Your task to perform on an android device: toggle javascript in the chrome app Image 0: 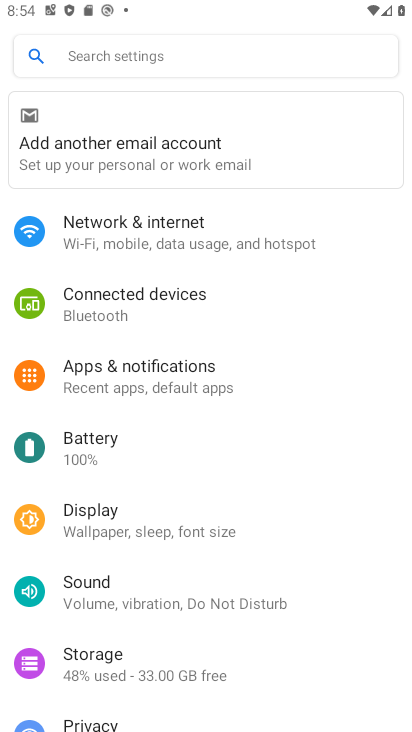
Step 0: press back button
Your task to perform on an android device: toggle javascript in the chrome app Image 1: 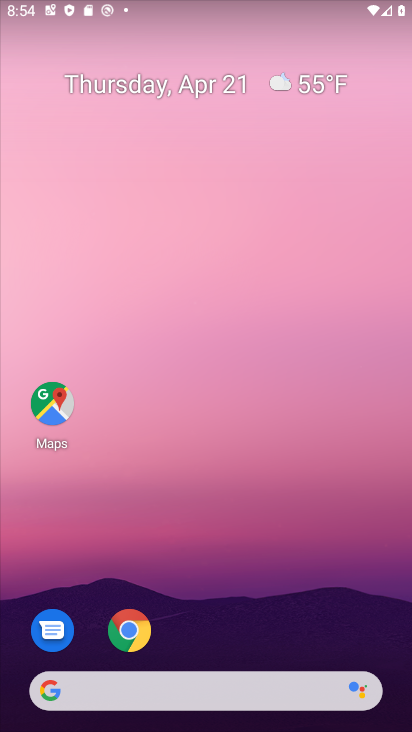
Step 1: click (136, 628)
Your task to perform on an android device: toggle javascript in the chrome app Image 2: 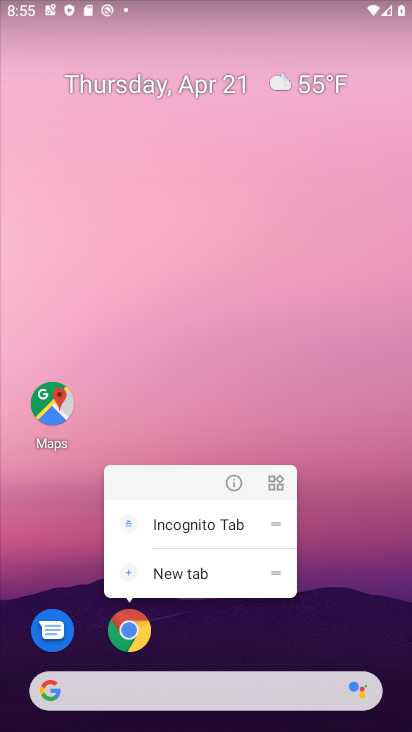
Step 2: click (137, 629)
Your task to perform on an android device: toggle javascript in the chrome app Image 3: 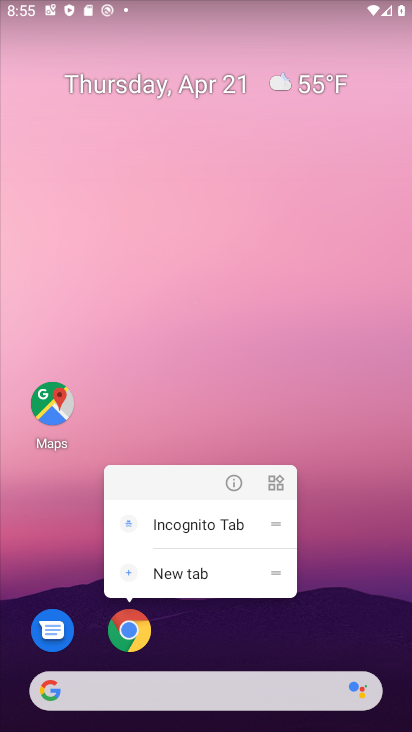
Step 3: click (131, 647)
Your task to perform on an android device: toggle javascript in the chrome app Image 4: 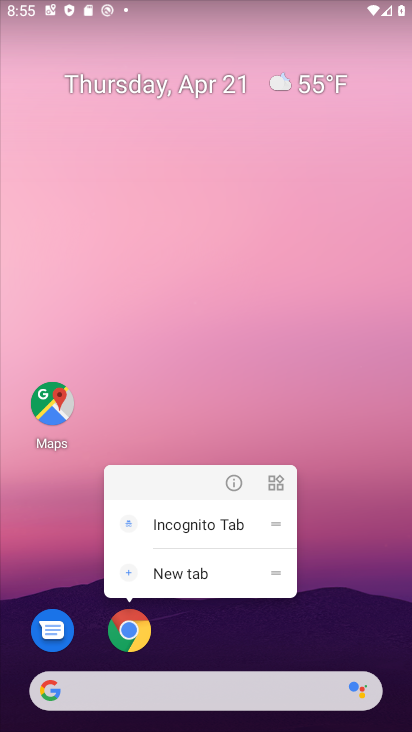
Step 4: click (120, 636)
Your task to perform on an android device: toggle javascript in the chrome app Image 5: 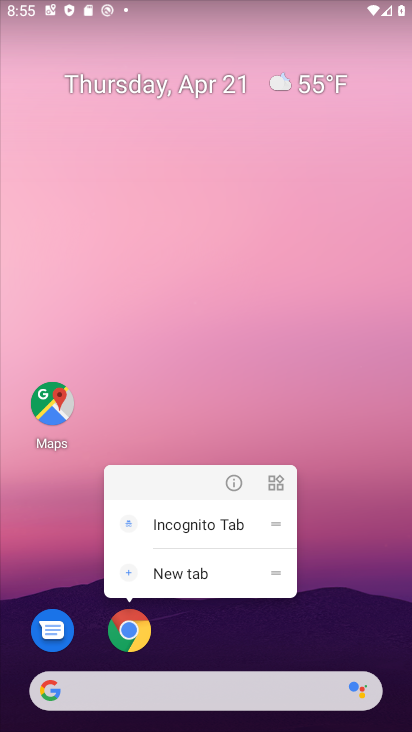
Step 5: click (138, 632)
Your task to perform on an android device: toggle javascript in the chrome app Image 6: 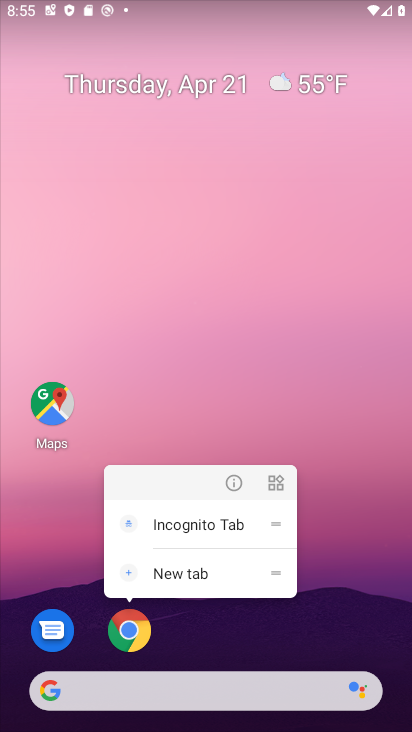
Step 6: click (144, 630)
Your task to perform on an android device: toggle javascript in the chrome app Image 7: 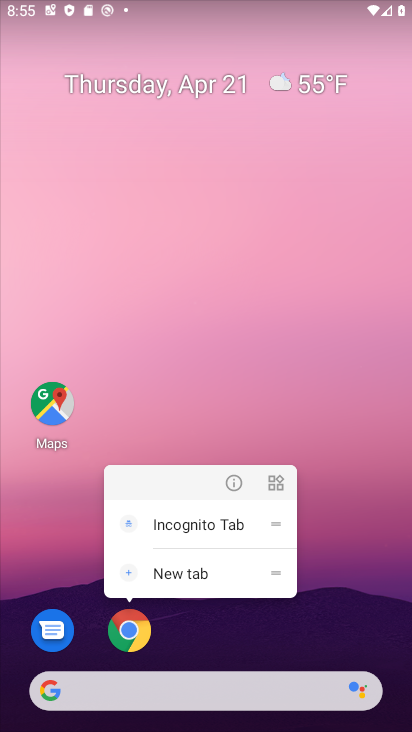
Step 7: click (141, 629)
Your task to perform on an android device: toggle javascript in the chrome app Image 8: 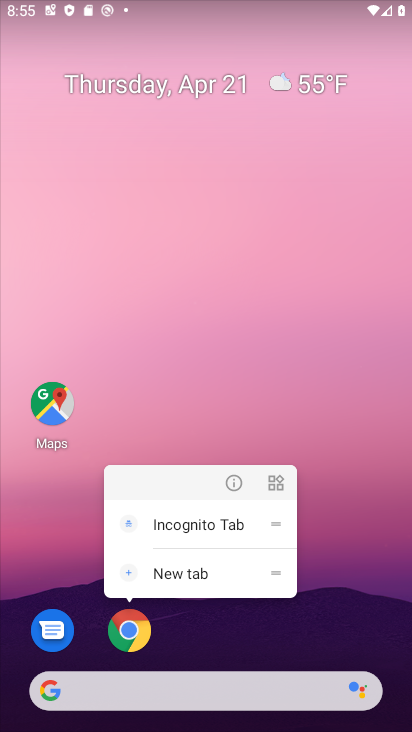
Step 8: click (132, 624)
Your task to perform on an android device: toggle javascript in the chrome app Image 9: 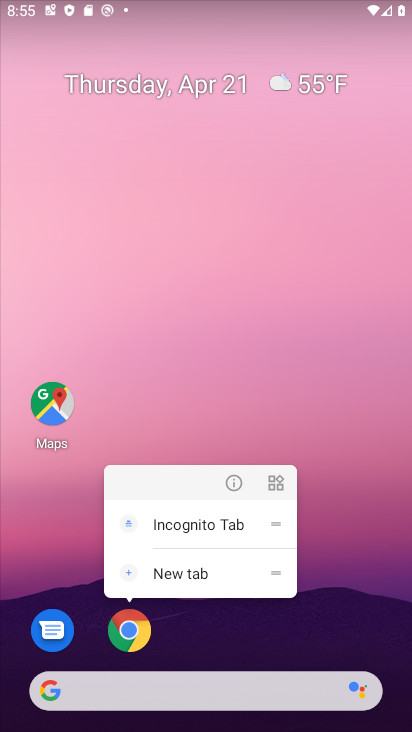
Step 9: click (130, 625)
Your task to perform on an android device: toggle javascript in the chrome app Image 10: 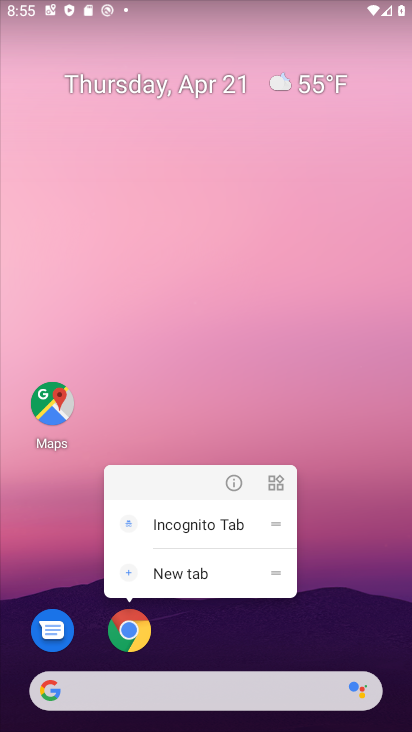
Step 10: drag from (221, 666) to (288, 126)
Your task to perform on an android device: toggle javascript in the chrome app Image 11: 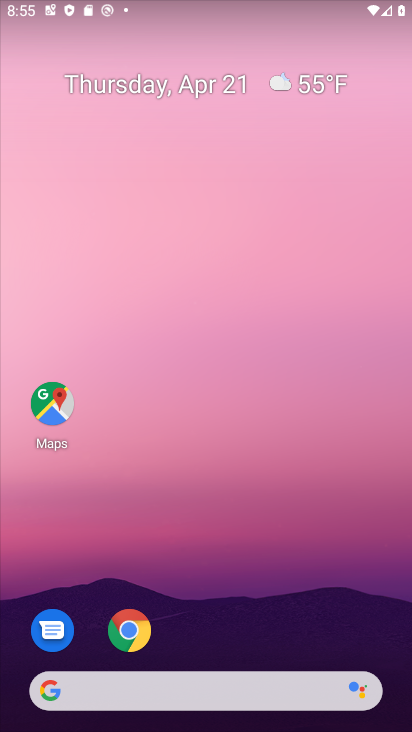
Step 11: drag from (238, 669) to (236, 105)
Your task to perform on an android device: toggle javascript in the chrome app Image 12: 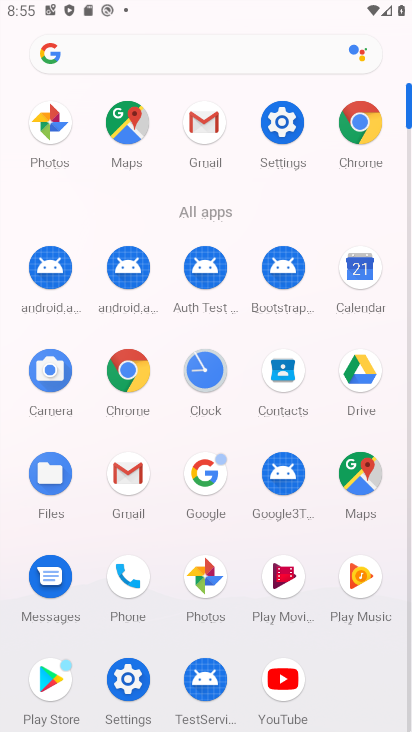
Step 12: click (142, 366)
Your task to perform on an android device: toggle javascript in the chrome app Image 13: 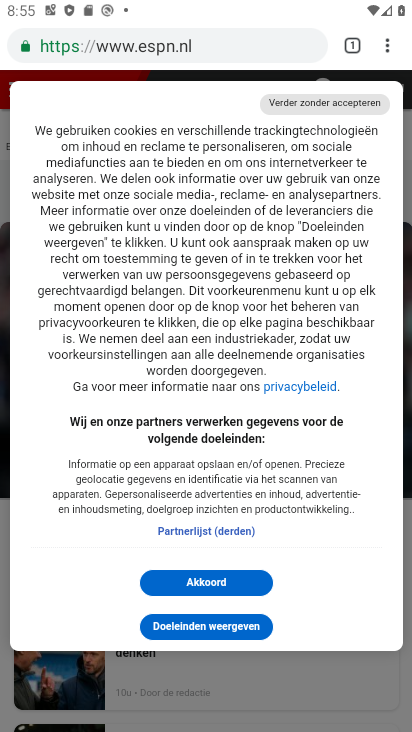
Step 13: drag from (387, 55) to (290, 594)
Your task to perform on an android device: toggle javascript in the chrome app Image 14: 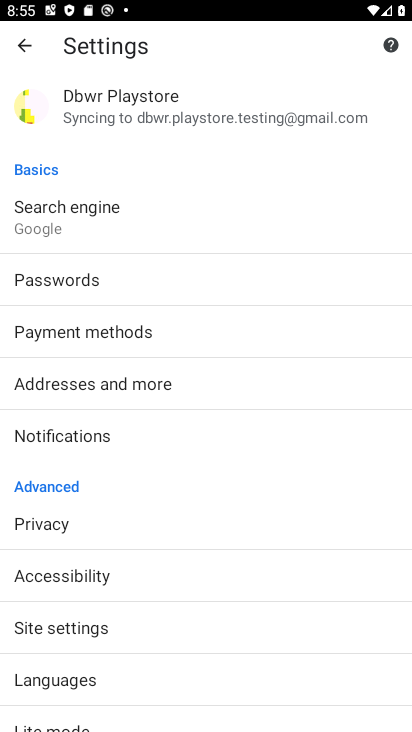
Step 14: drag from (174, 643) to (210, 430)
Your task to perform on an android device: toggle javascript in the chrome app Image 15: 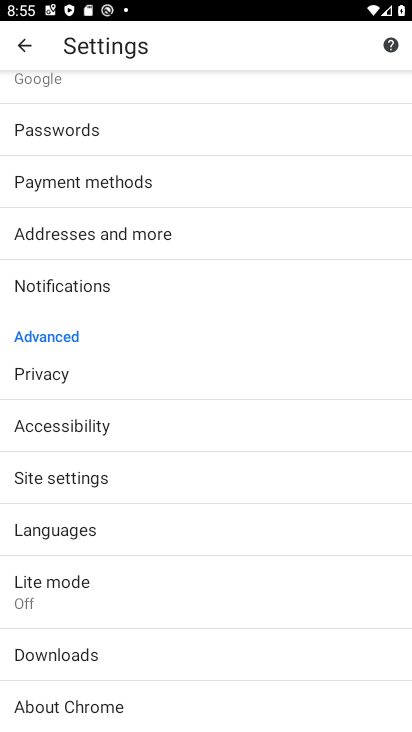
Step 15: click (163, 476)
Your task to perform on an android device: toggle javascript in the chrome app Image 16: 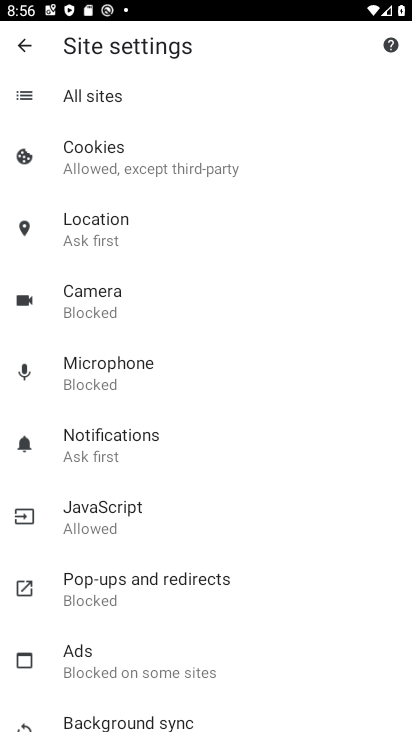
Step 16: drag from (166, 684) to (219, 351)
Your task to perform on an android device: toggle javascript in the chrome app Image 17: 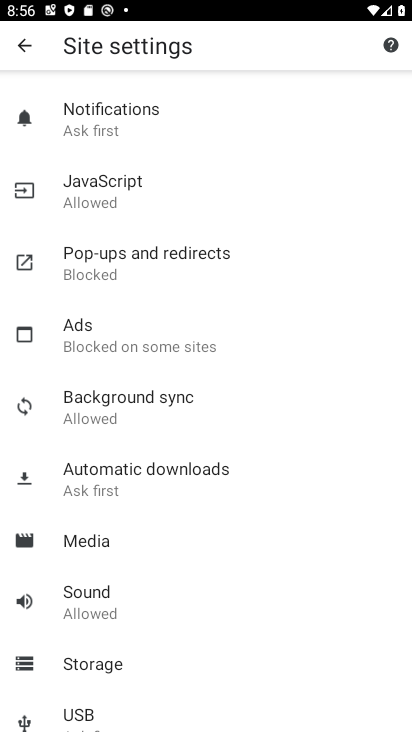
Step 17: click (134, 191)
Your task to perform on an android device: toggle javascript in the chrome app Image 18: 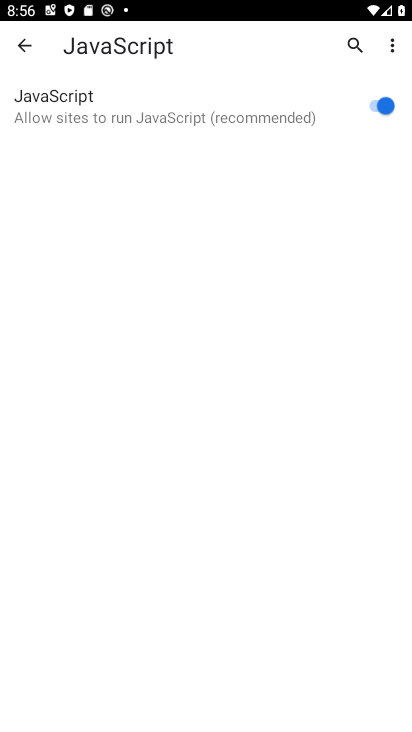
Step 18: click (134, 191)
Your task to perform on an android device: toggle javascript in the chrome app Image 19: 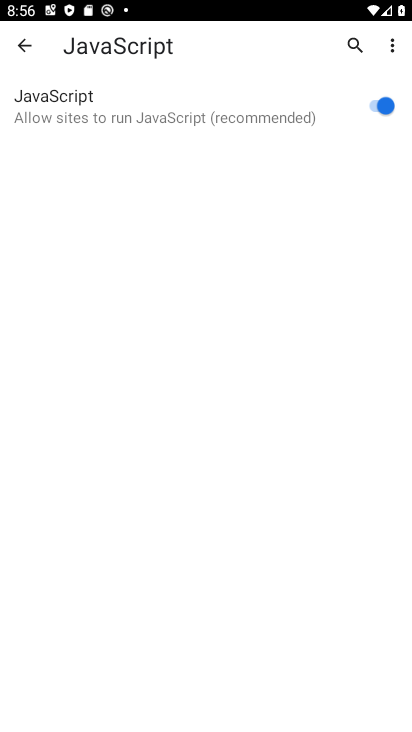
Step 19: click (374, 108)
Your task to perform on an android device: toggle javascript in the chrome app Image 20: 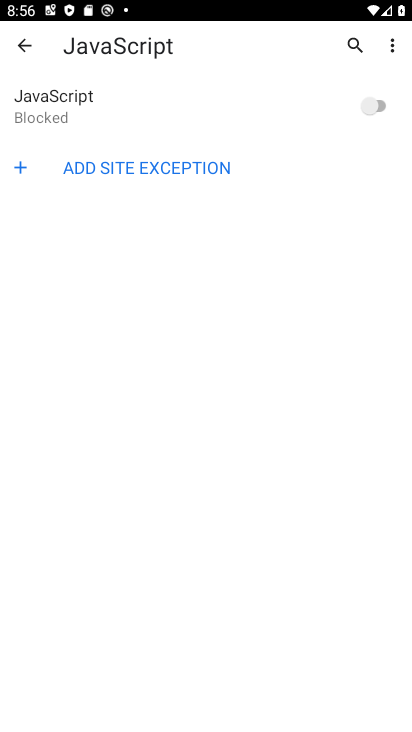
Step 20: task complete